Your task to perform on an android device: Go to wifi settings Image 0: 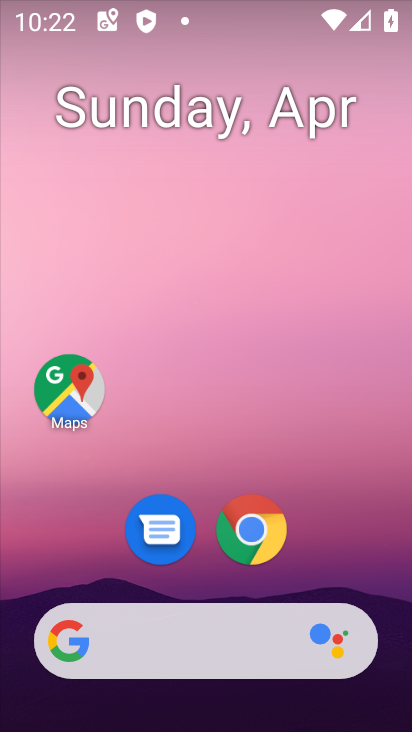
Step 0: drag from (209, 534) to (266, 28)
Your task to perform on an android device: Go to wifi settings Image 1: 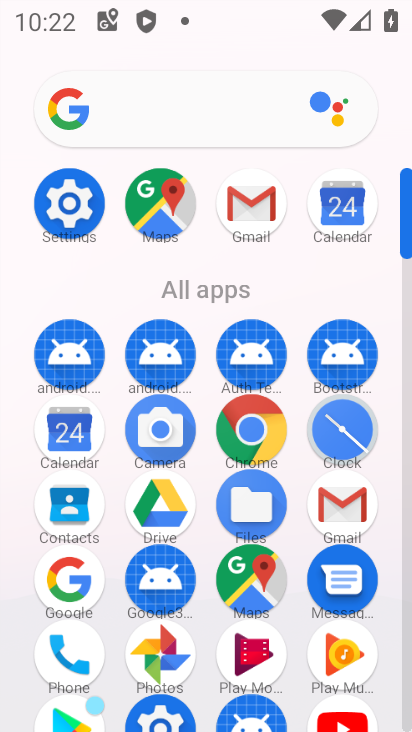
Step 1: click (62, 218)
Your task to perform on an android device: Go to wifi settings Image 2: 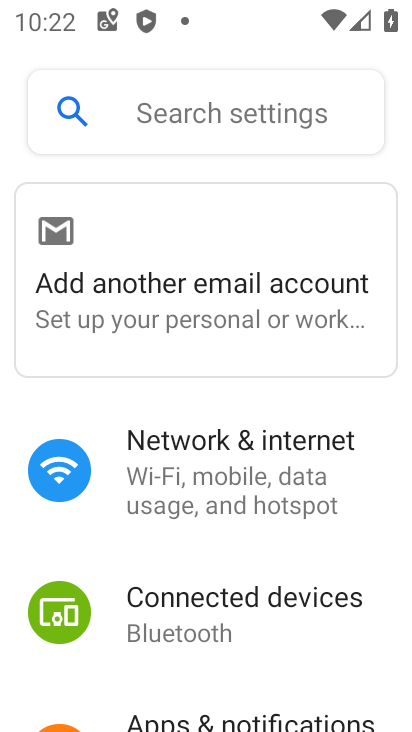
Step 2: click (217, 421)
Your task to perform on an android device: Go to wifi settings Image 3: 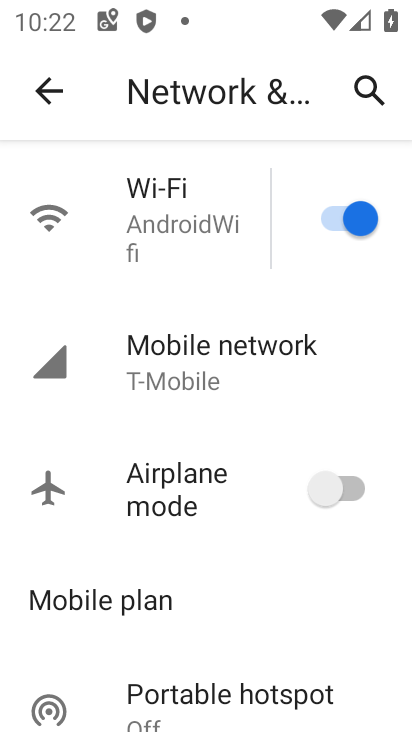
Step 3: click (184, 217)
Your task to perform on an android device: Go to wifi settings Image 4: 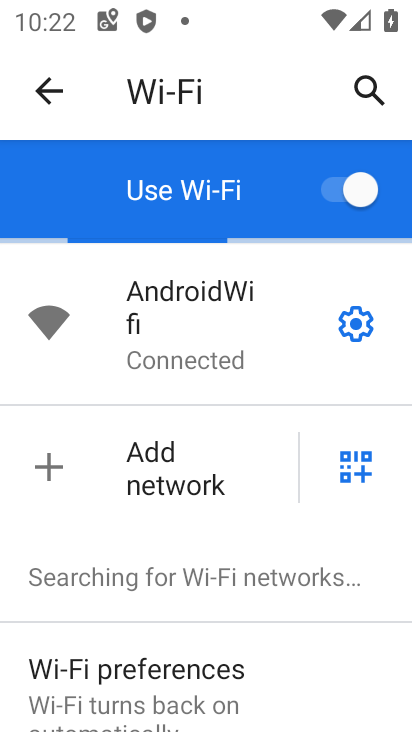
Step 4: task complete